Your task to perform on an android device: Open Youtube and go to "Your channel" Image 0: 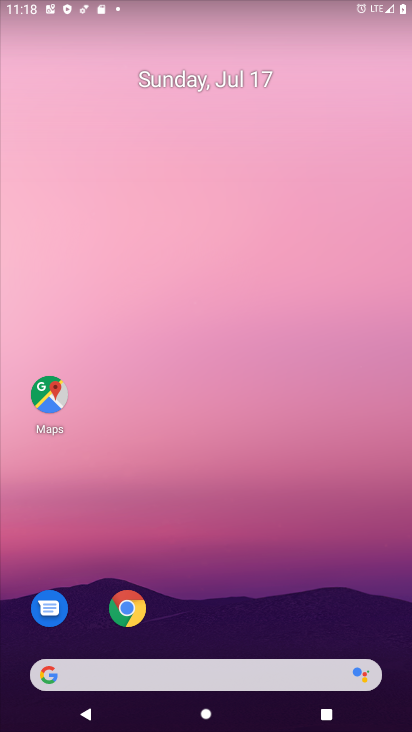
Step 0: drag from (200, 609) to (186, 26)
Your task to perform on an android device: Open Youtube and go to "Your channel" Image 1: 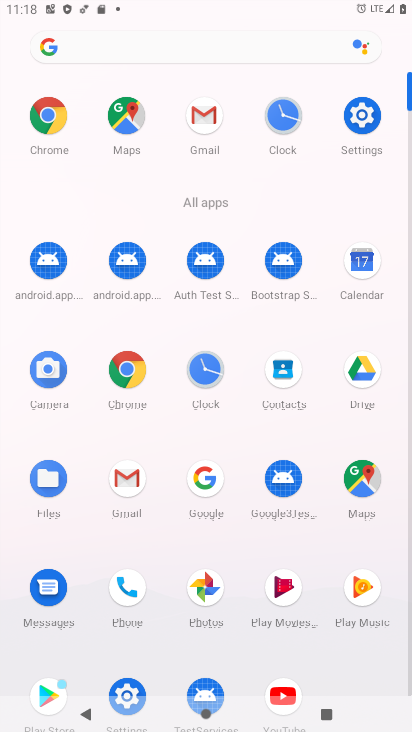
Step 1: click (283, 690)
Your task to perform on an android device: Open Youtube and go to "Your channel" Image 2: 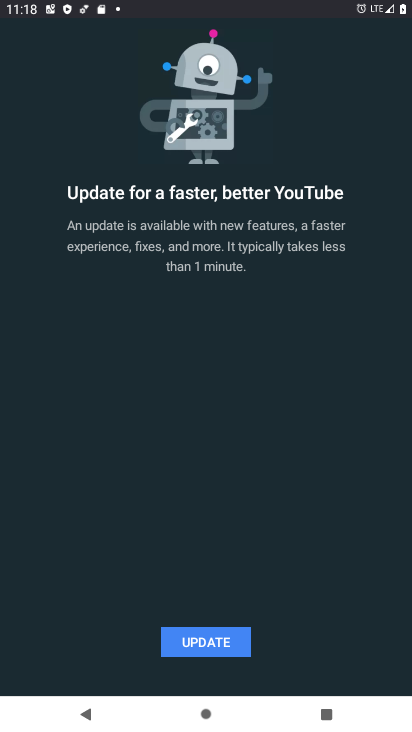
Step 2: click (207, 646)
Your task to perform on an android device: Open Youtube and go to "Your channel" Image 3: 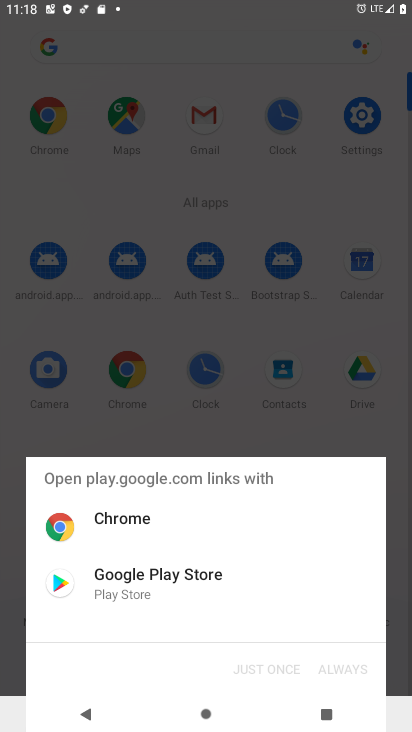
Step 3: click (197, 567)
Your task to perform on an android device: Open Youtube and go to "Your channel" Image 4: 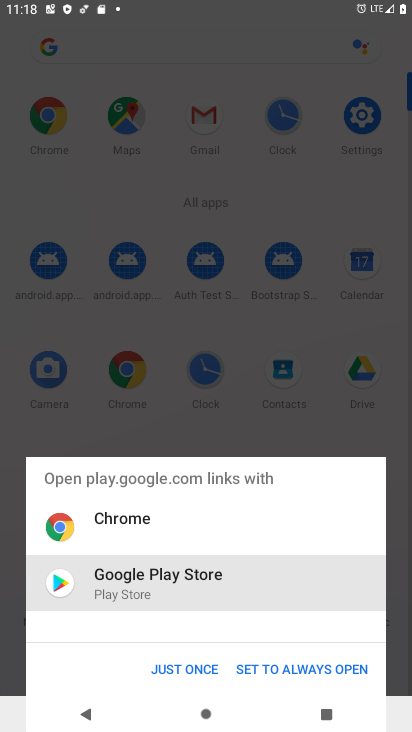
Step 4: click (195, 657)
Your task to perform on an android device: Open Youtube and go to "Your channel" Image 5: 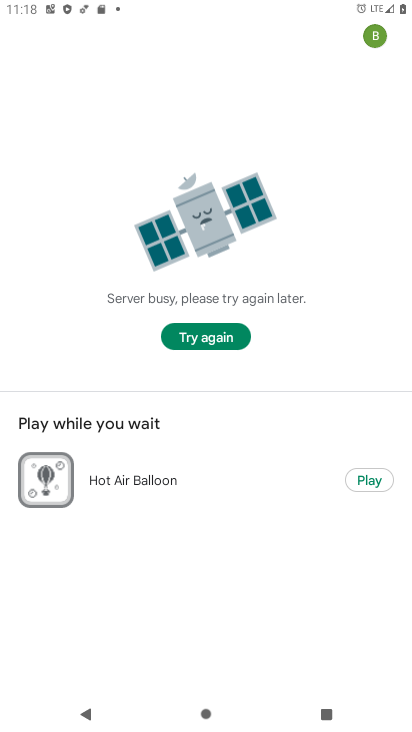
Step 5: click (204, 338)
Your task to perform on an android device: Open Youtube and go to "Your channel" Image 6: 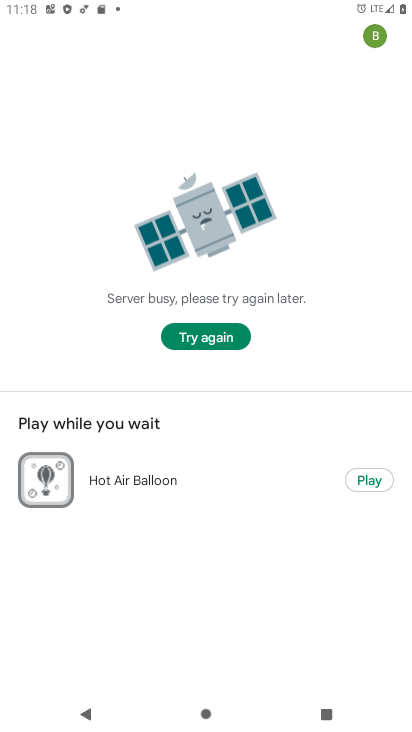
Step 6: click (214, 341)
Your task to perform on an android device: Open Youtube and go to "Your channel" Image 7: 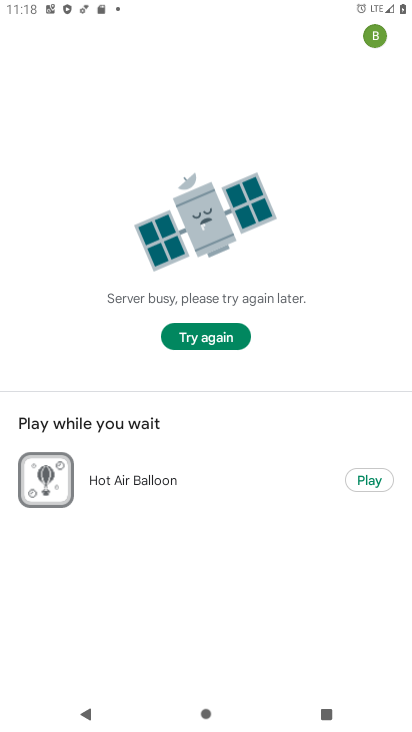
Step 7: task complete